Your task to perform on an android device: toggle show notifications on the lock screen Image 0: 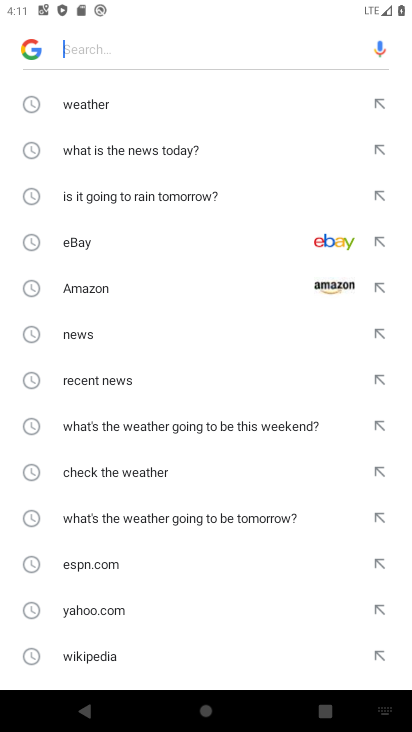
Step 0: press back button
Your task to perform on an android device: toggle show notifications on the lock screen Image 1: 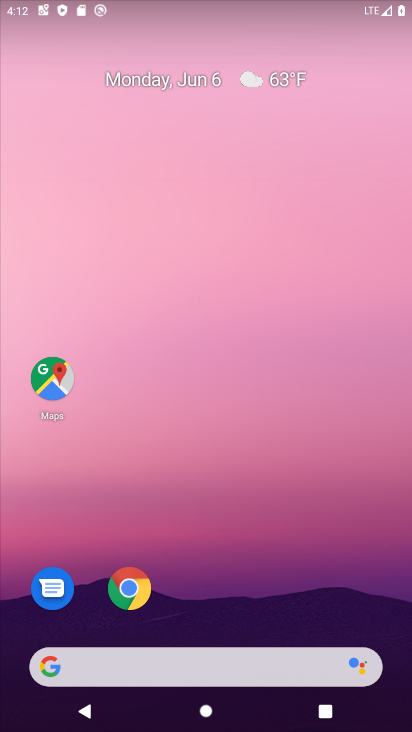
Step 1: click (234, 83)
Your task to perform on an android device: toggle show notifications on the lock screen Image 2: 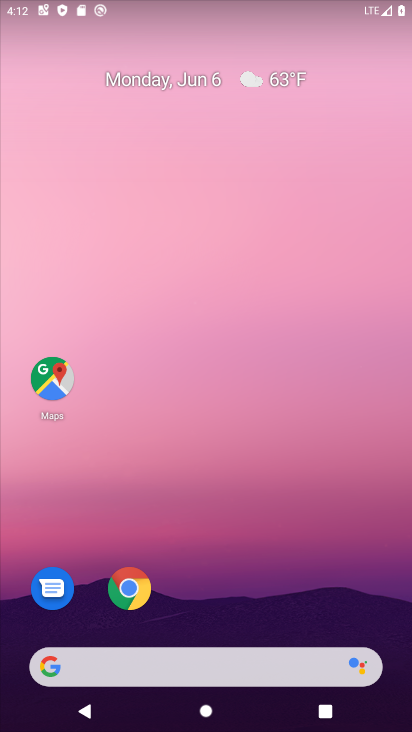
Step 2: drag from (252, 12) to (193, 7)
Your task to perform on an android device: toggle show notifications on the lock screen Image 3: 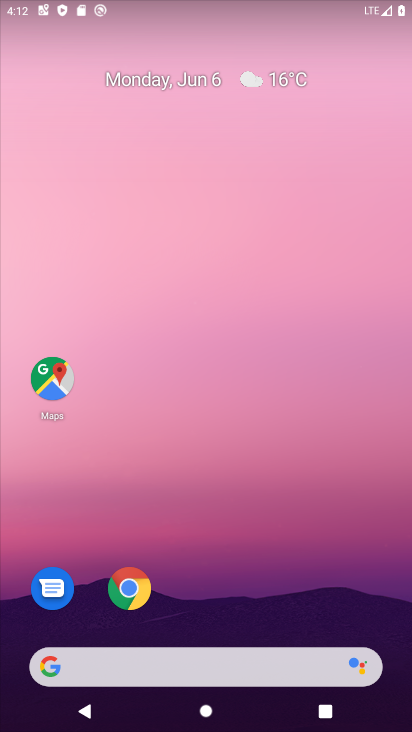
Step 3: drag from (229, 337) to (229, 32)
Your task to perform on an android device: toggle show notifications on the lock screen Image 4: 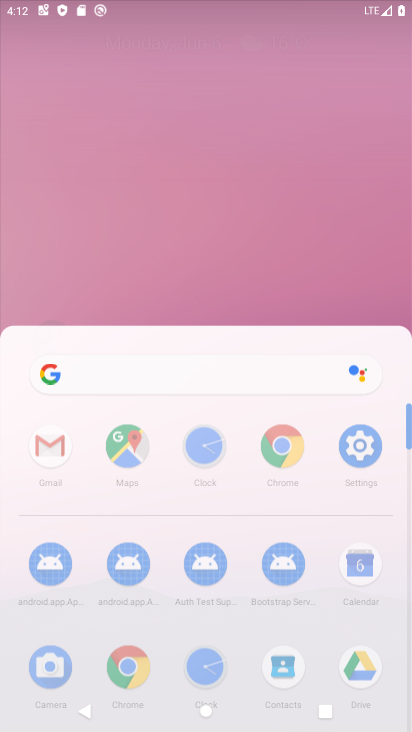
Step 4: drag from (219, 576) to (234, 24)
Your task to perform on an android device: toggle show notifications on the lock screen Image 5: 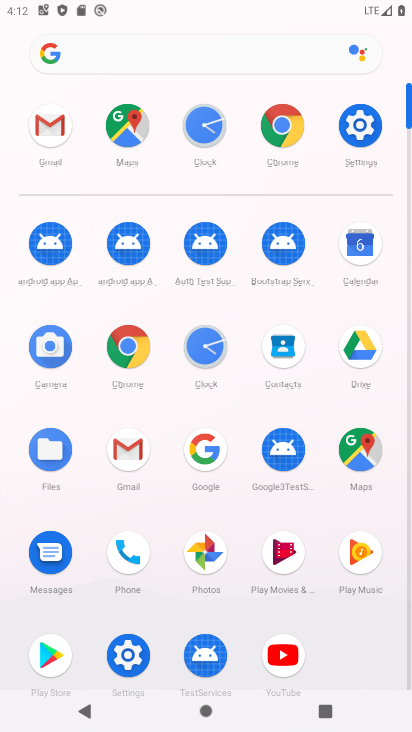
Step 5: drag from (269, 616) to (283, 131)
Your task to perform on an android device: toggle show notifications on the lock screen Image 6: 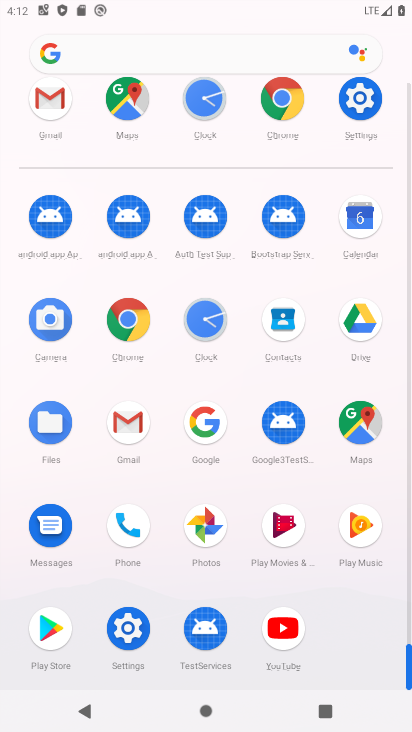
Step 6: click (361, 109)
Your task to perform on an android device: toggle show notifications on the lock screen Image 7: 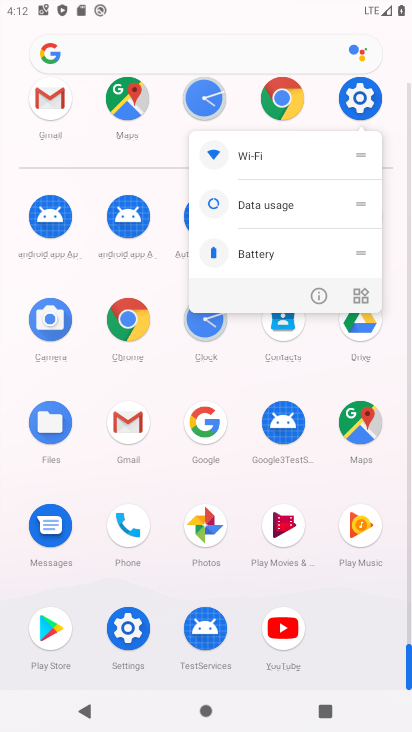
Step 7: click (361, 108)
Your task to perform on an android device: toggle show notifications on the lock screen Image 8: 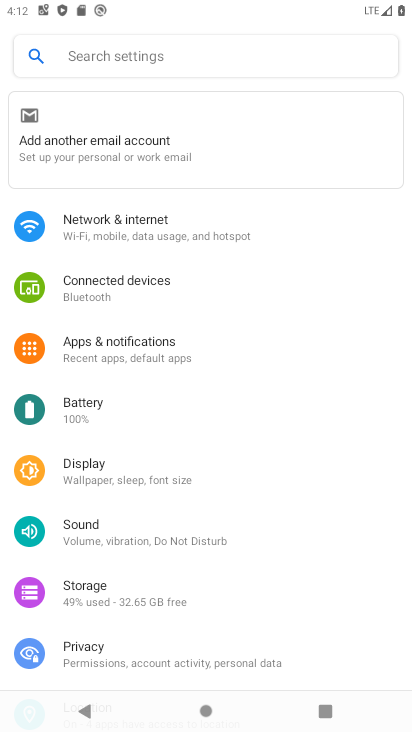
Step 8: click (118, 352)
Your task to perform on an android device: toggle show notifications on the lock screen Image 9: 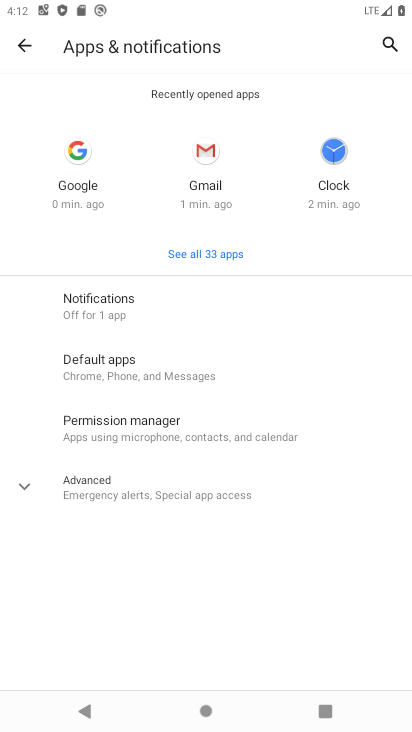
Step 9: click (91, 299)
Your task to perform on an android device: toggle show notifications on the lock screen Image 10: 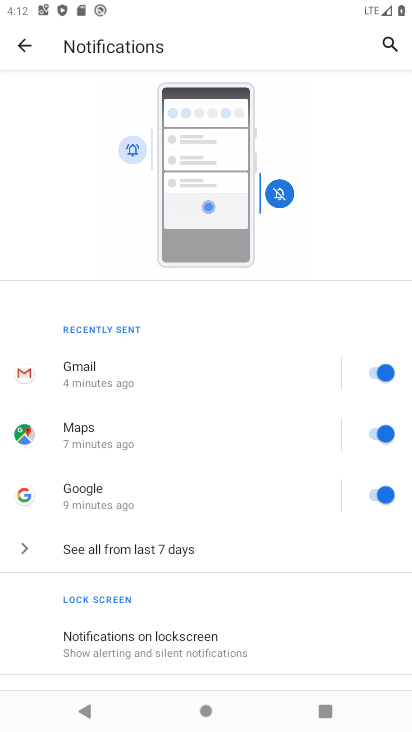
Step 10: click (126, 640)
Your task to perform on an android device: toggle show notifications on the lock screen Image 11: 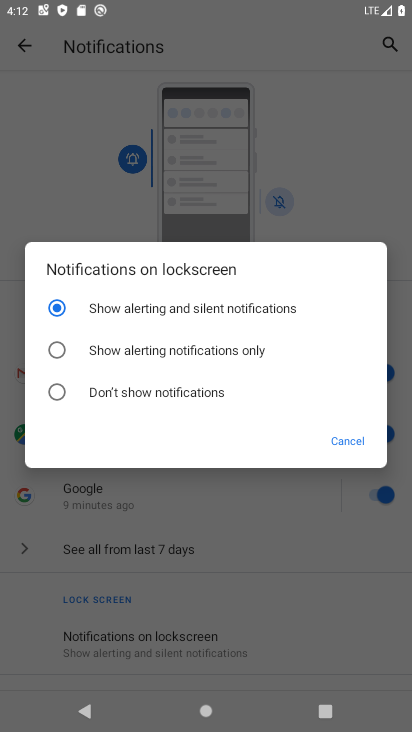
Step 11: click (183, 310)
Your task to perform on an android device: toggle show notifications on the lock screen Image 12: 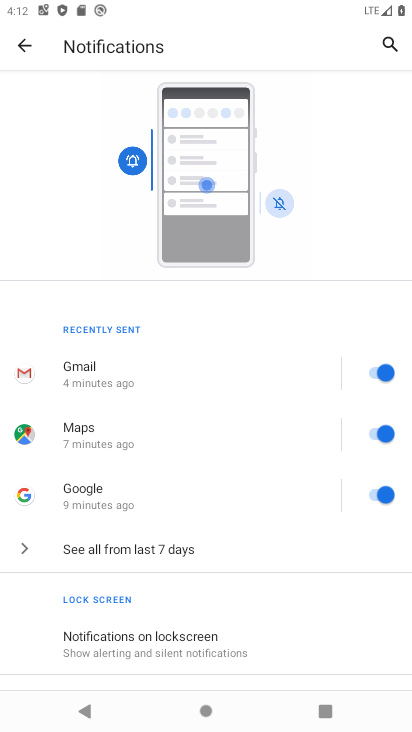
Step 12: click (352, 444)
Your task to perform on an android device: toggle show notifications on the lock screen Image 13: 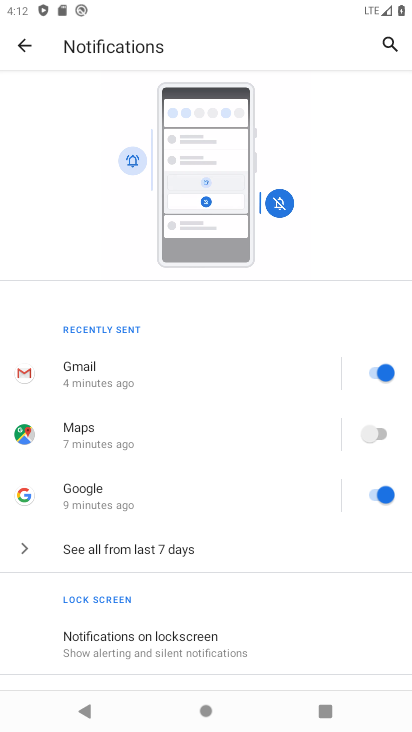
Step 13: task complete